Your task to perform on an android device: toggle notification dots Image 0: 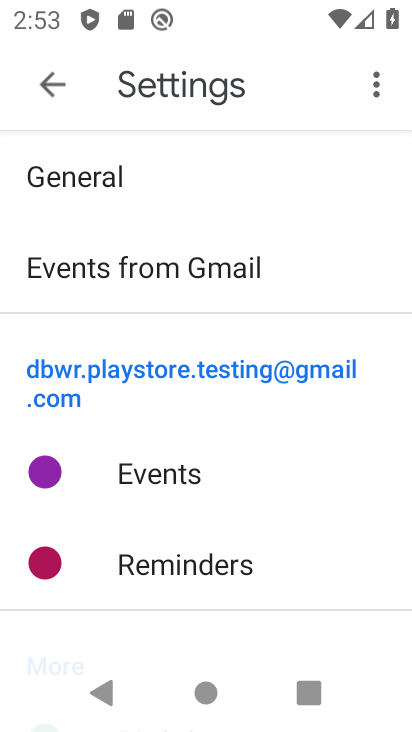
Step 0: press home button
Your task to perform on an android device: toggle notification dots Image 1: 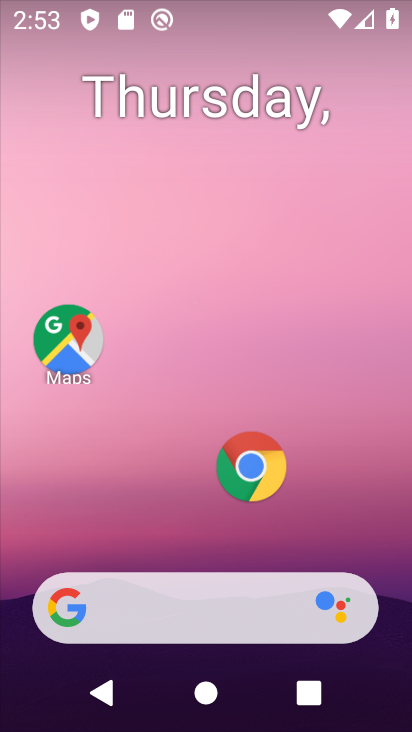
Step 1: drag from (199, 524) to (183, 173)
Your task to perform on an android device: toggle notification dots Image 2: 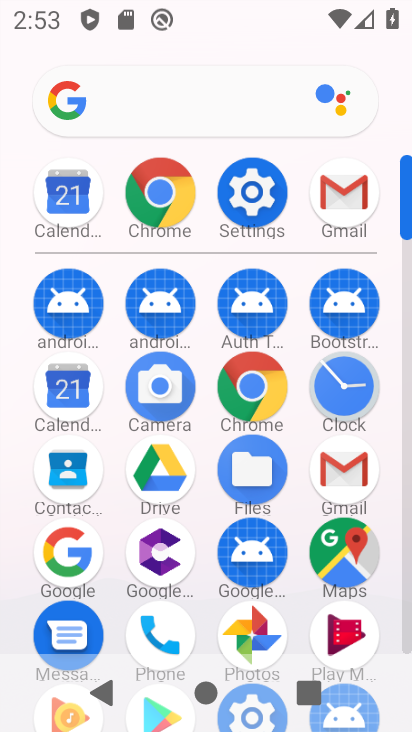
Step 2: click (237, 194)
Your task to perform on an android device: toggle notification dots Image 3: 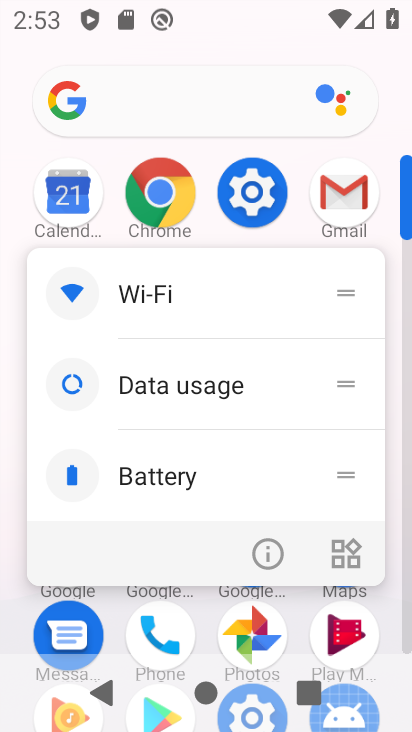
Step 3: click (253, 194)
Your task to perform on an android device: toggle notification dots Image 4: 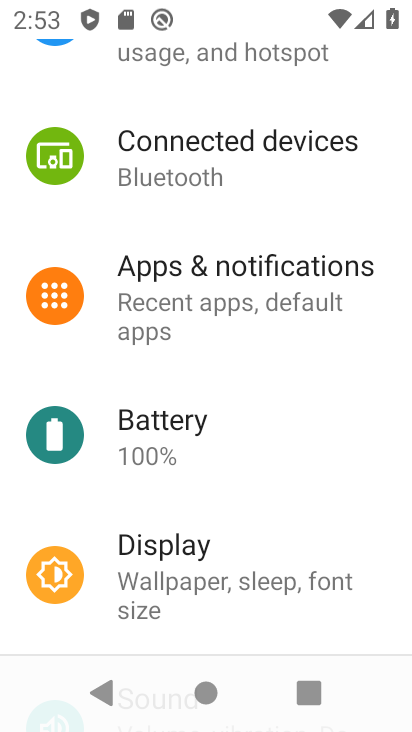
Step 4: click (235, 278)
Your task to perform on an android device: toggle notification dots Image 5: 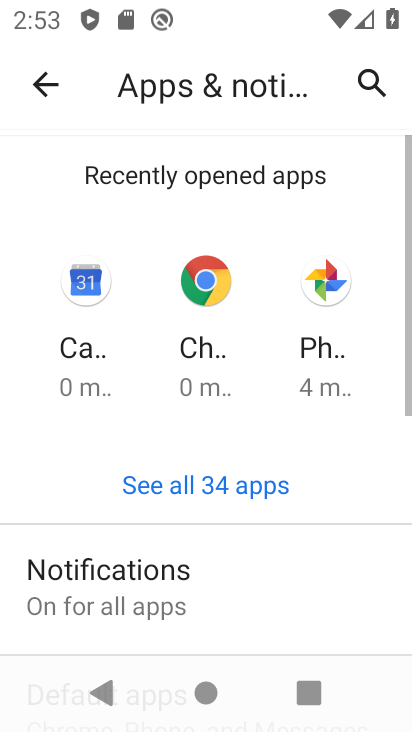
Step 5: click (184, 590)
Your task to perform on an android device: toggle notification dots Image 6: 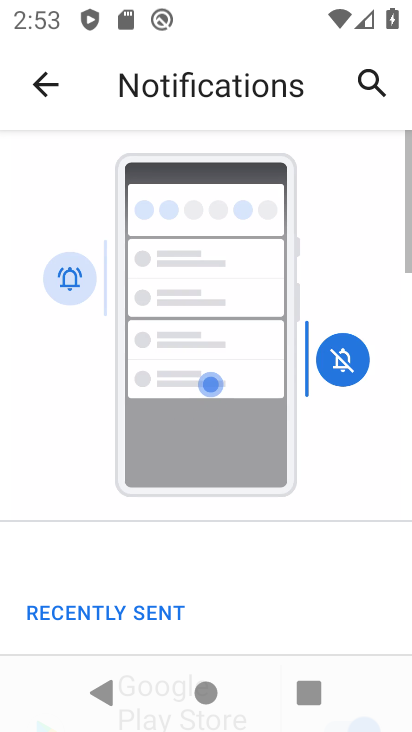
Step 6: drag from (235, 585) to (248, 178)
Your task to perform on an android device: toggle notification dots Image 7: 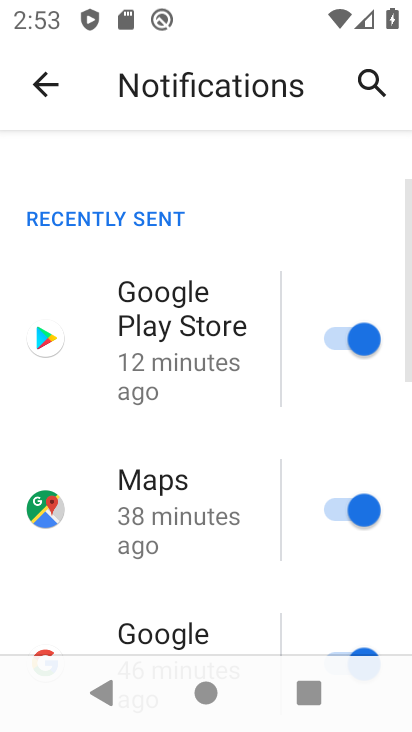
Step 7: drag from (239, 556) to (254, 183)
Your task to perform on an android device: toggle notification dots Image 8: 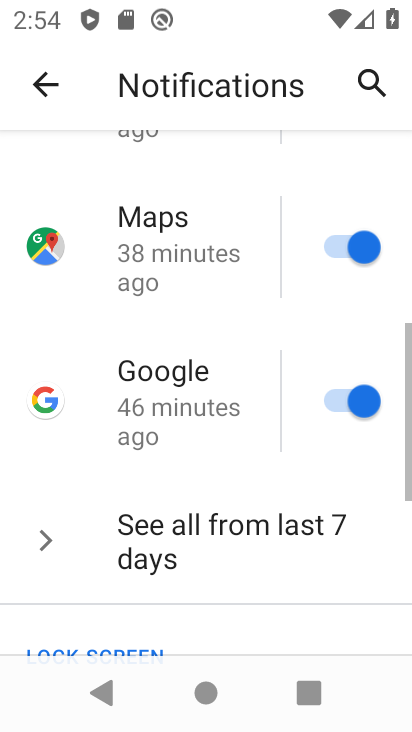
Step 8: drag from (265, 545) to (268, 201)
Your task to perform on an android device: toggle notification dots Image 9: 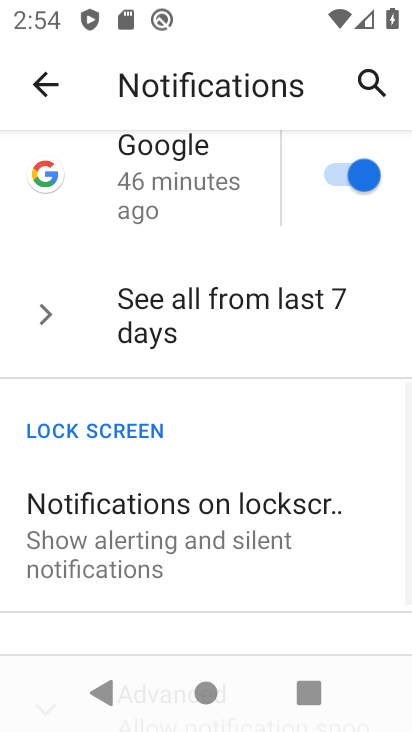
Step 9: drag from (266, 556) to (268, 280)
Your task to perform on an android device: toggle notification dots Image 10: 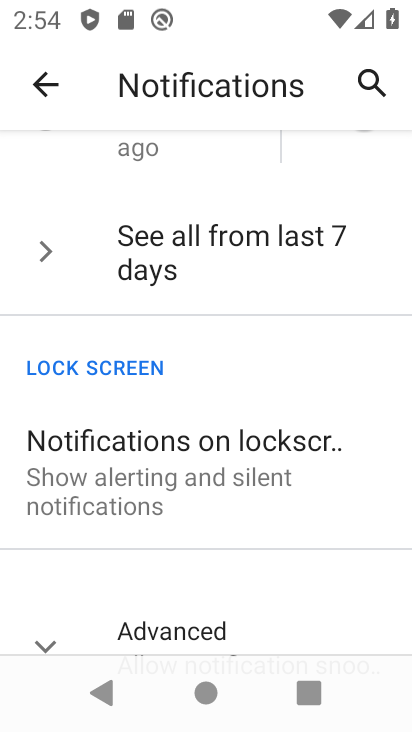
Step 10: drag from (238, 572) to (240, 371)
Your task to perform on an android device: toggle notification dots Image 11: 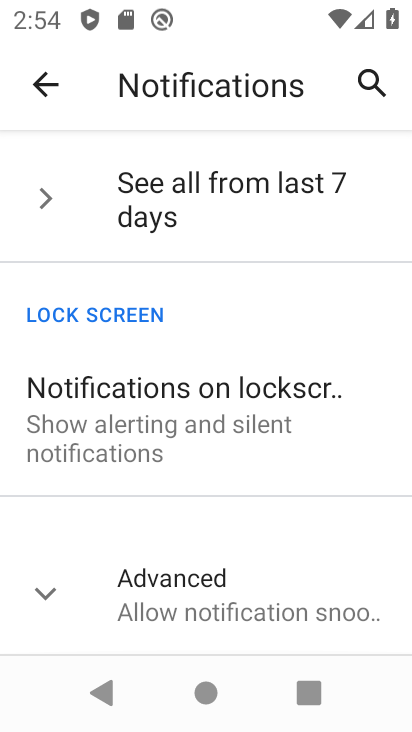
Step 11: click (212, 584)
Your task to perform on an android device: toggle notification dots Image 12: 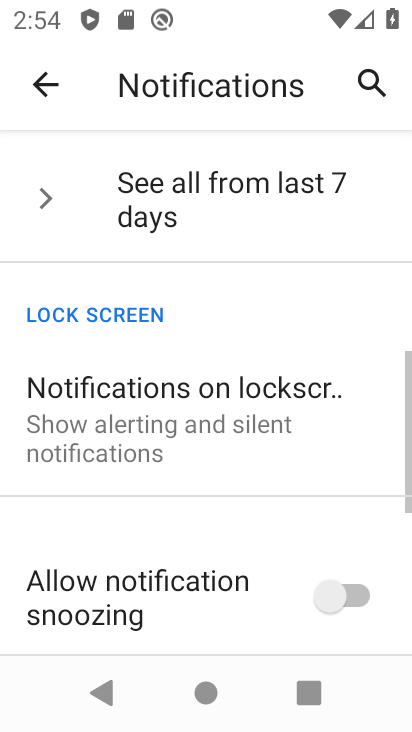
Step 12: drag from (231, 604) to (234, 262)
Your task to perform on an android device: toggle notification dots Image 13: 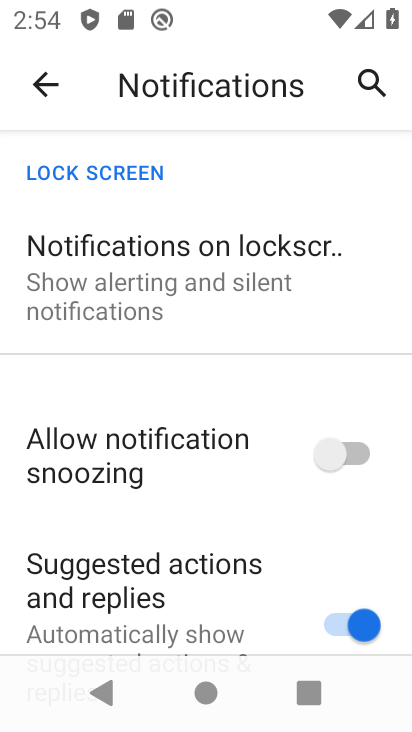
Step 13: drag from (228, 553) to (245, 235)
Your task to perform on an android device: toggle notification dots Image 14: 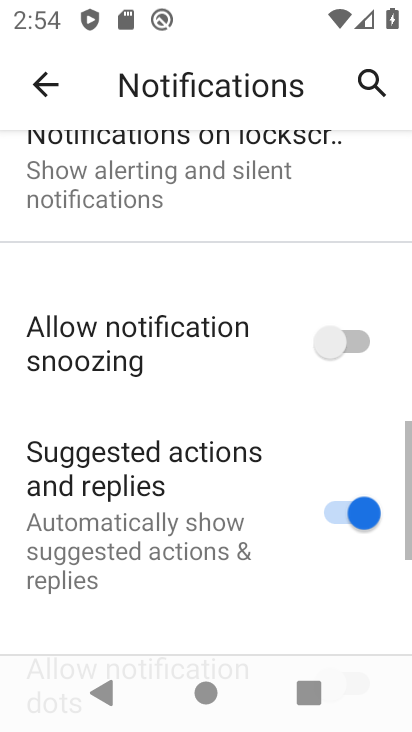
Step 14: drag from (244, 549) to (265, 274)
Your task to perform on an android device: toggle notification dots Image 15: 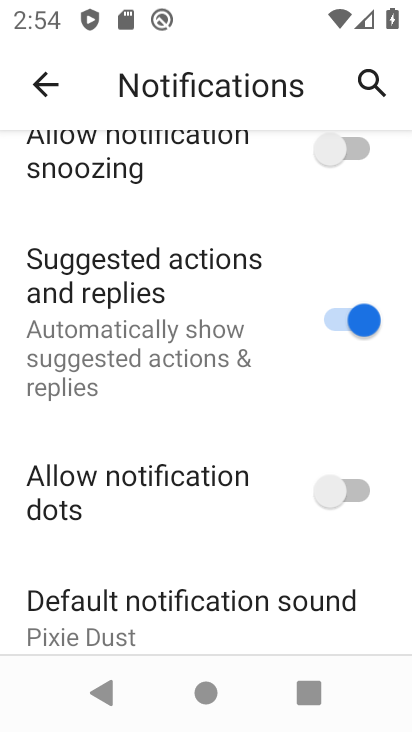
Step 15: click (352, 487)
Your task to perform on an android device: toggle notification dots Image 16: 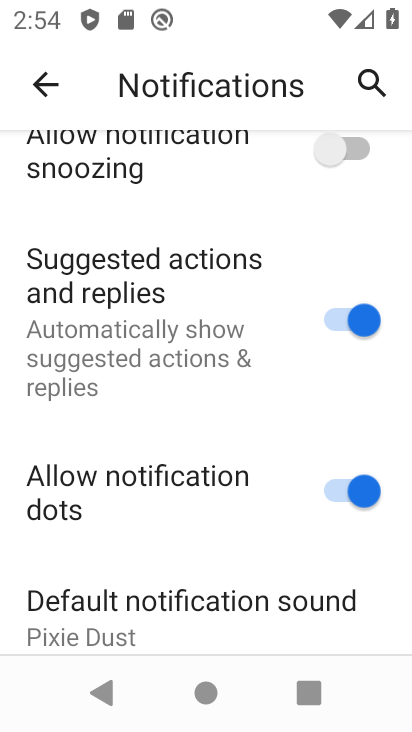
Step 16: task complete